Your task to perform on an android device: turn on airplane mode Image 0: 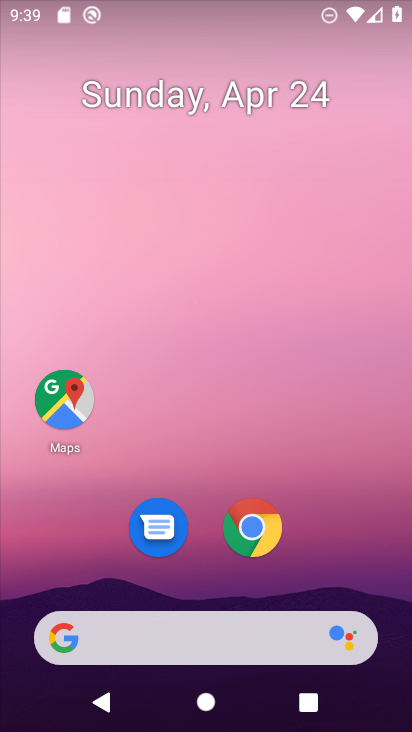
Step 0: drag from (184, 1) to (239, 315)
Your task to perform on an android device: turn on airplane mode Image 1: 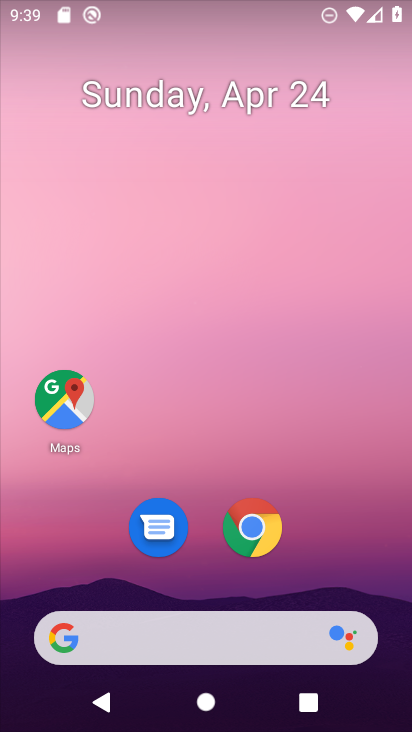
Step 1: drag from (231, 8) to (253, 445)
Your task to perform on an android device: turn on airplane mode Image 2: 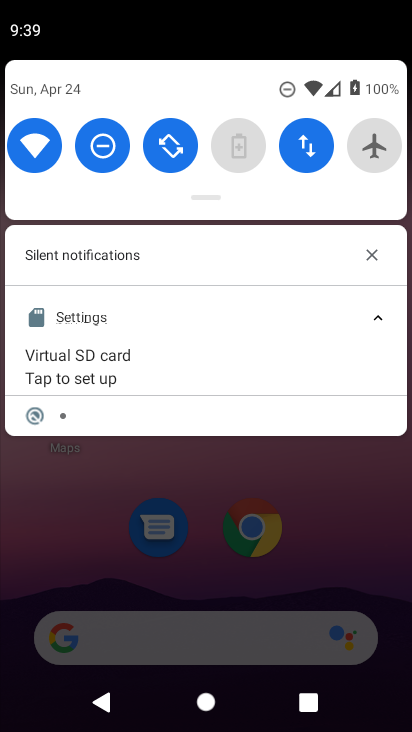
Step 2: drag from (201, 207) to (178, 547)
Your task to perform on an android device: turn on airplane mode Image 3: 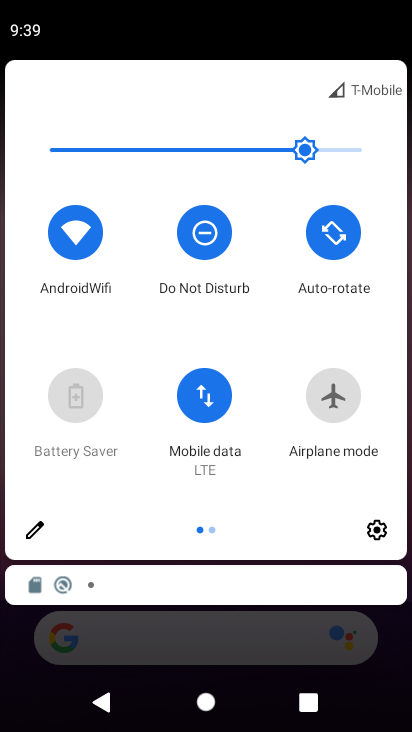
Step 3: click (320, 387)
Your task to perform on an android device: turn on airplane mode Image 4: 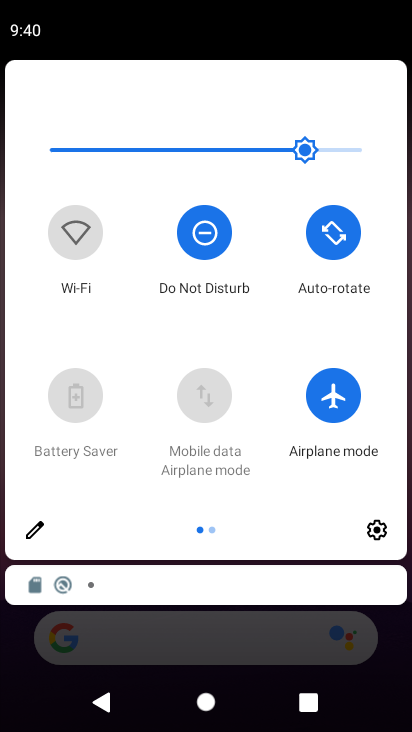
Step 4: task complete